Your task to perform on an android device: Open the stopwatch Image 0: 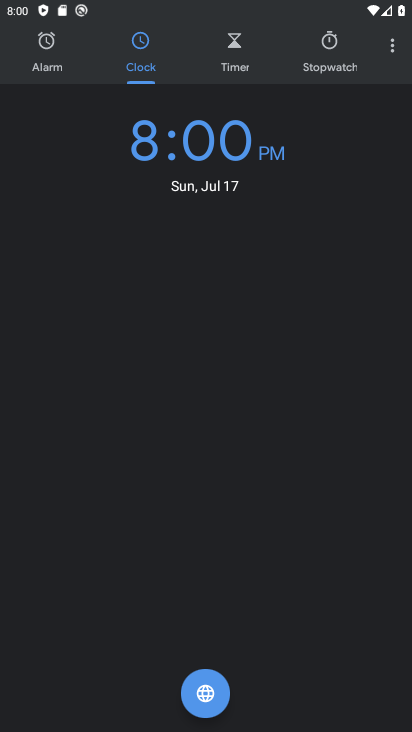
Step 0: click (331, 55)
Your task to perform on an android device: Open the stopwatch Image 1: 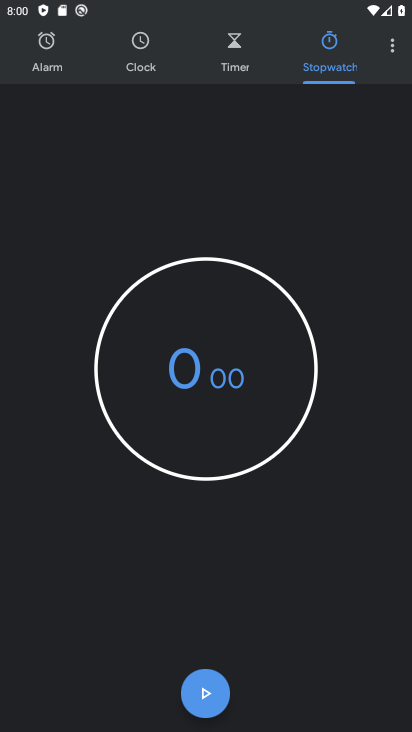
Step 1: click (200, 692)
Your task to perform on an android device: Open the stopwatch Image 2: 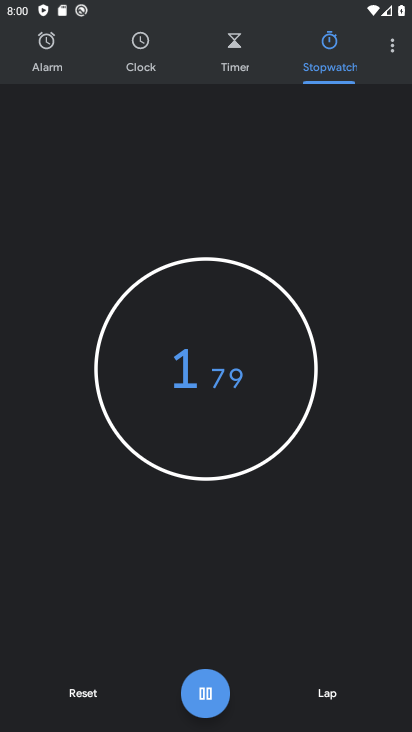
Step 2: click (201, 700)
Your task to perform on an android device: Open the stopwatch Image 3: 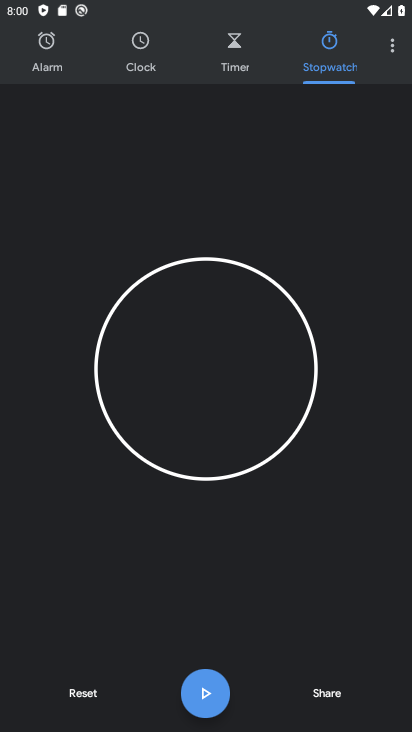
Step 3: task complete